Your task to perform on an android device: turn on location history Image 0: 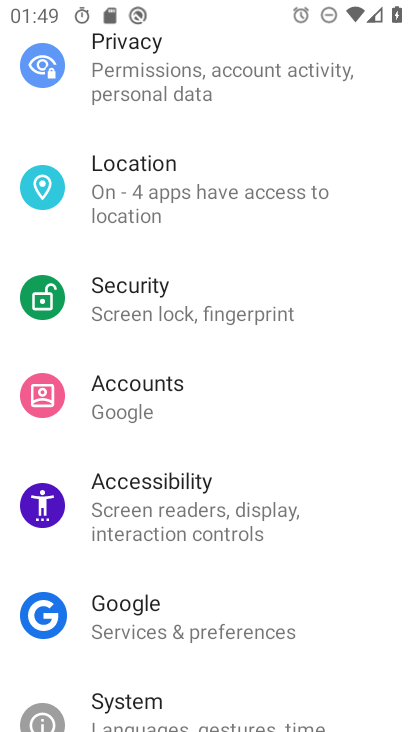
Step 0: click (249, 192)
Your task to perform on an android device: turn on location history Image 1: 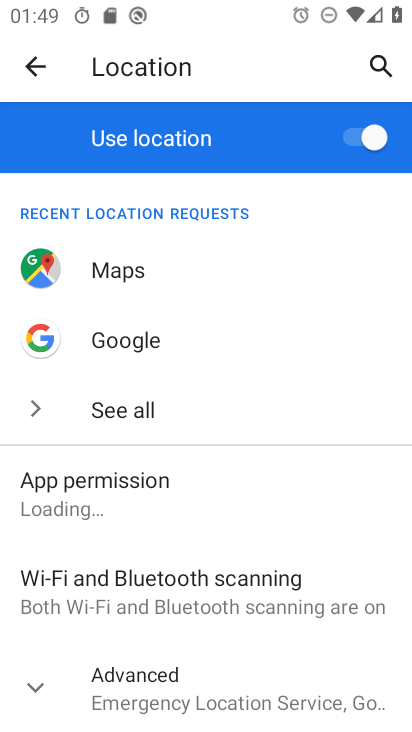
Step 1: click (194, 679)
Your task to perform on an android device: turn on location history Image 2: 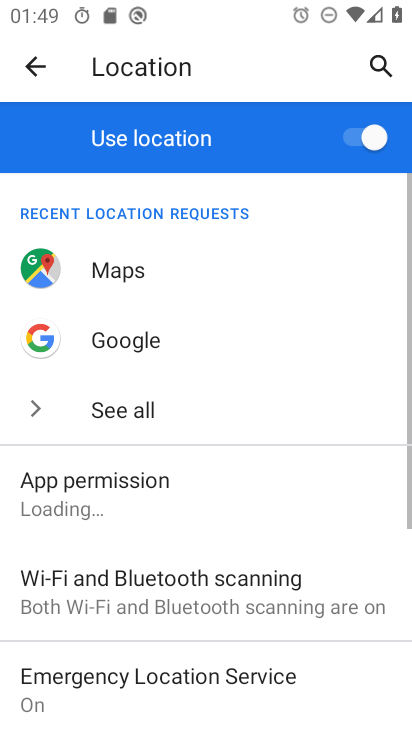
Step 2: drag from (241, 601) to (221, 219)
Your task to perform on an android device: turn on location history Image 3: 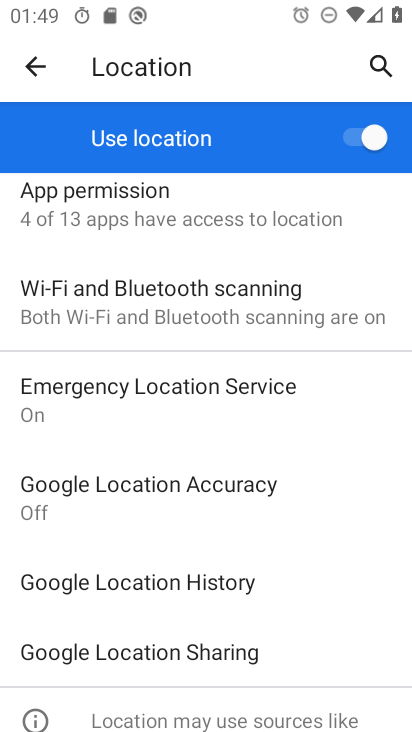
Step 3: click (216, 594)
Your task to perform on an android device: turn on location history Image 4: 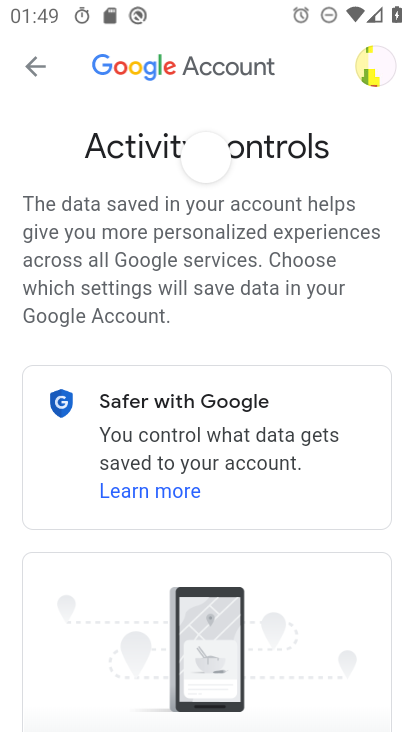
Step 4: drag from (372, 587) to (319, 226)
Your task to perform on an android device: turn on location history Image 5: 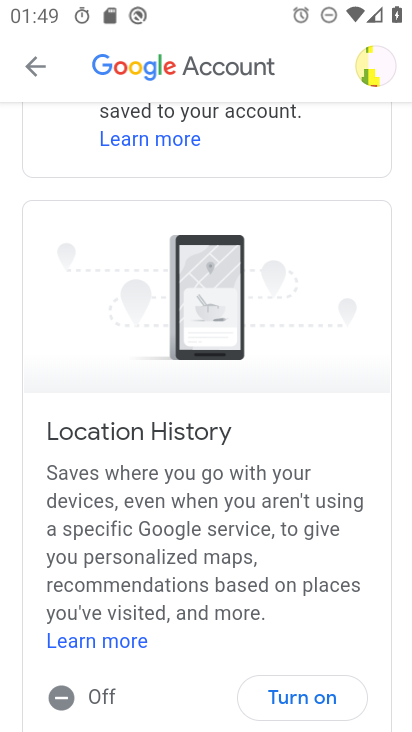
Step 5: drag from (285, 566) to (274, 236)
Your task to perform on an android device: turn on location history Image 6: 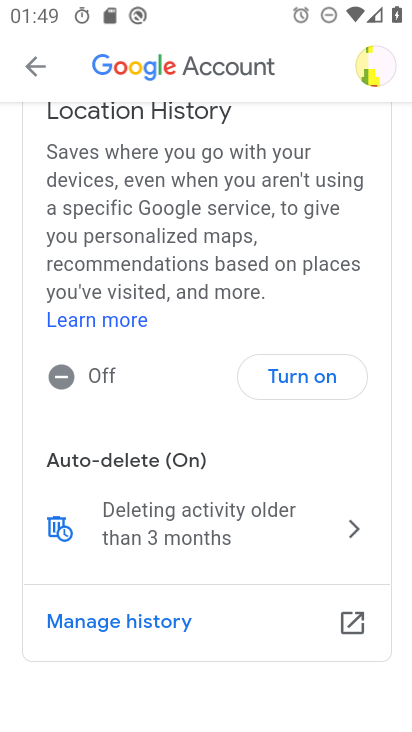
Step 6: click (299, 390)
Your task to perform on an android device: turn on location history Image 7: 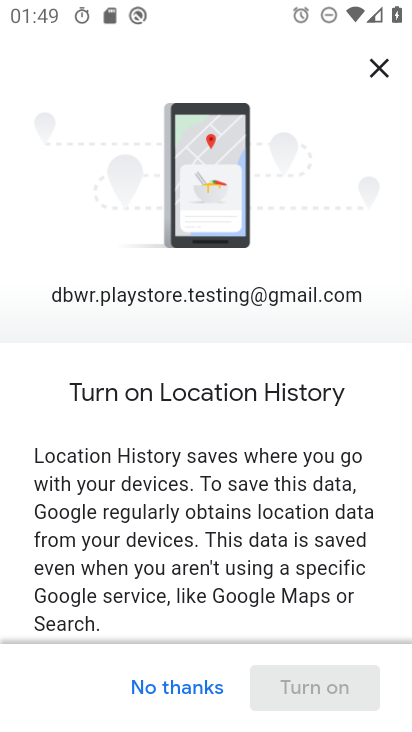
Step 7: drag from (317, 576) to (297, 184)
Your task to perform on an android device: turn on location history Image 8: 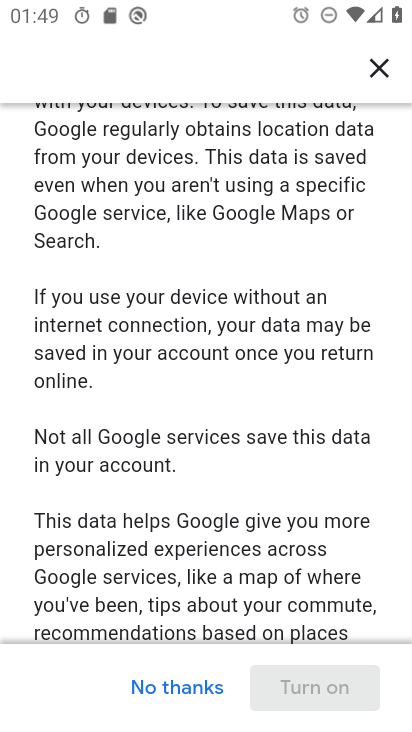
Step 8: drag from (279, 557) to (258, 186)
Your task to perform on an android device: turn on location history Image 9: 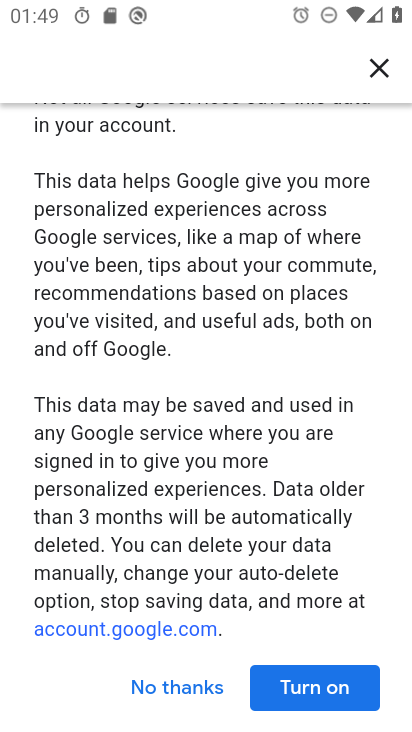
Step 9: click (309, 681)
Your task to perform on an android device: turn on location history Image 10: 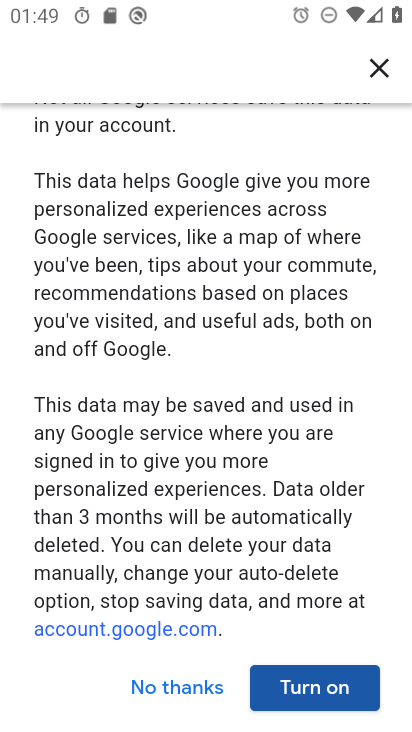
Step 10: click (352, 681)
Your task to perform on an android device: turn on location history Image 11: 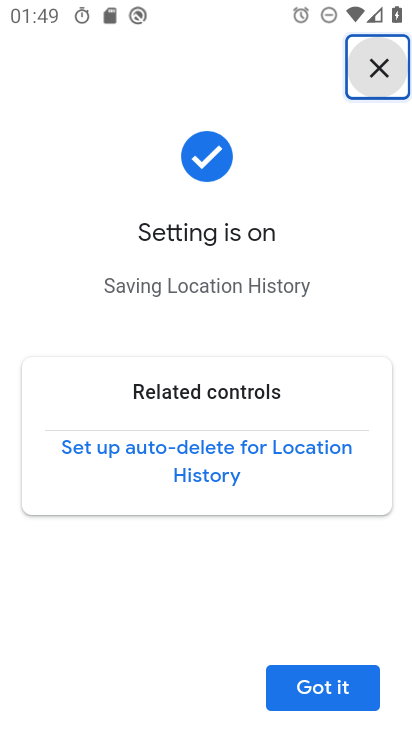
Step 11: click (336, 671)
Your task to perform on an android device: turn on location history Image 12: 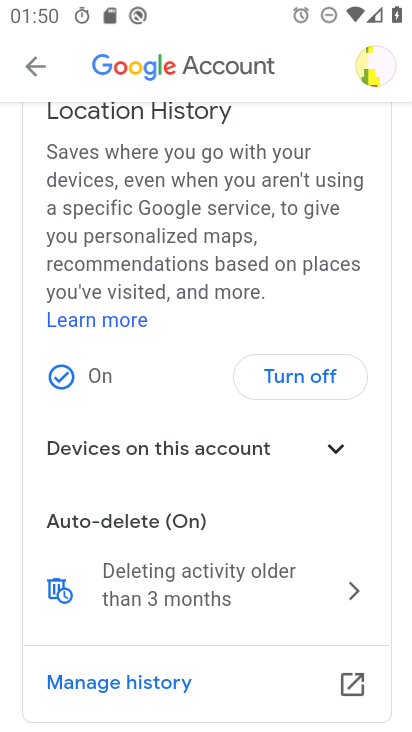
Step 12: task complete